Your task to perform on an android device: set the stopwatch Image 0: 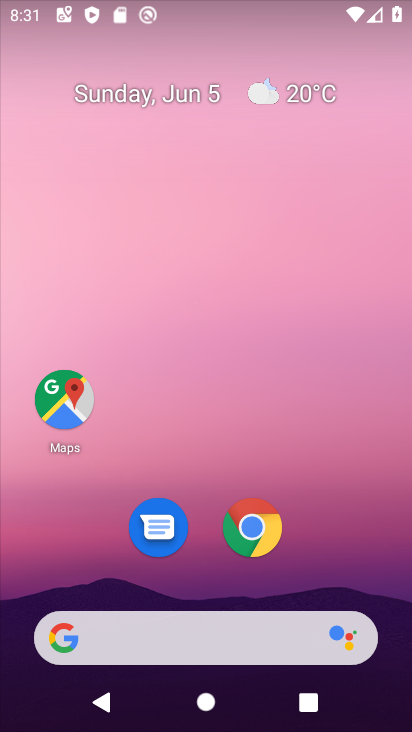
Step 0: drag from (334, 520) to (41, 8)
Your task to perform on an android device: set the stopwatch Image 1: 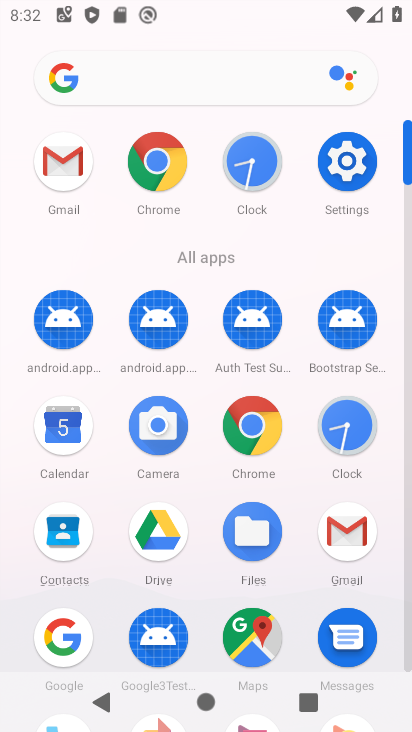
Step 1: click (365, 438)
Your task to perform on an android device: set the stopwatch Image 2: 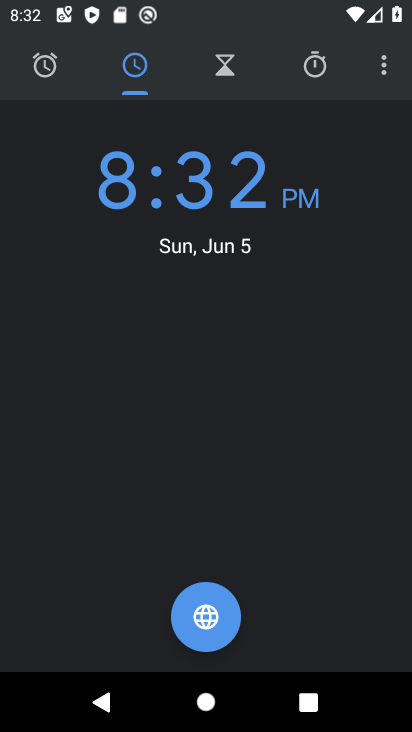
Step 2: click (319, 82)
Your task to perform on an android device: set the stopwatch Image 3: 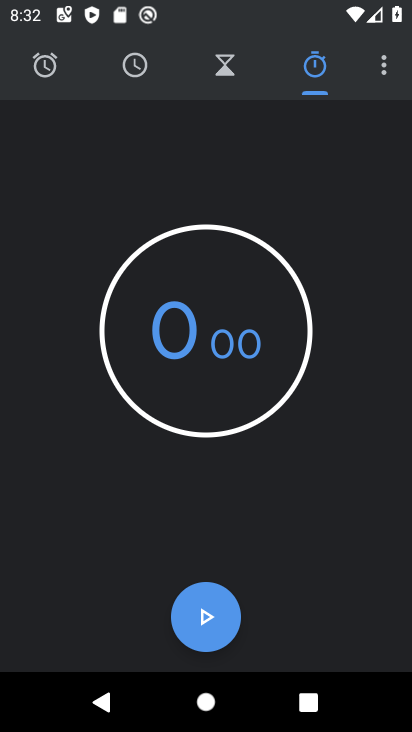
Step 3: click (191, 633)
Your task to perform on an android device: set the stopwatch Image 4: 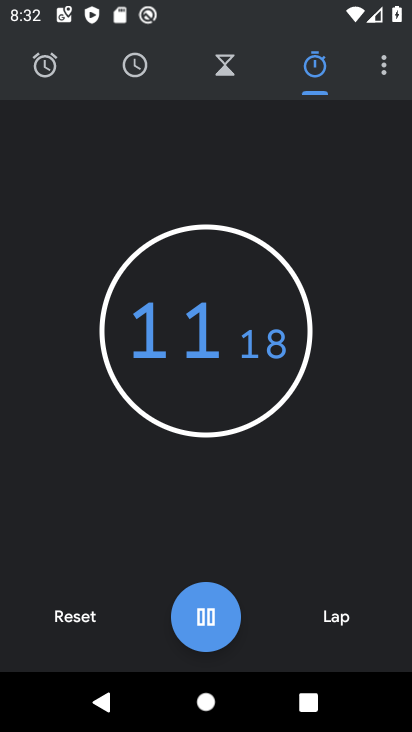
Step 4: task complete